Your task to perform on an android device: Set the phone to "Do not disturb". Image 0: 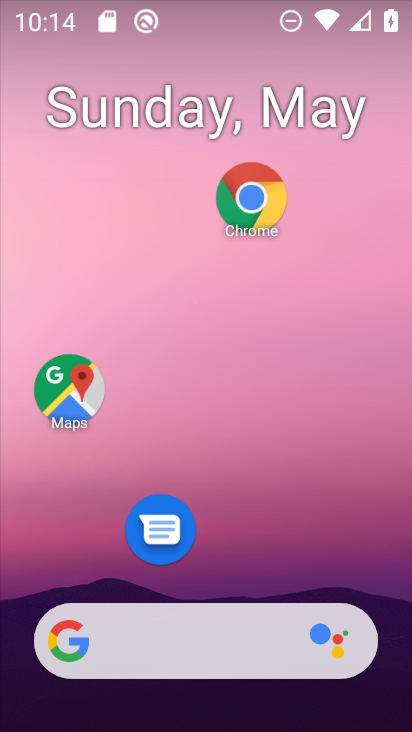
Step 0: drag from (262, 556) to (229, 133)
Your task to perform on an android device: Set the phone to "Do not disturb". Image 1: 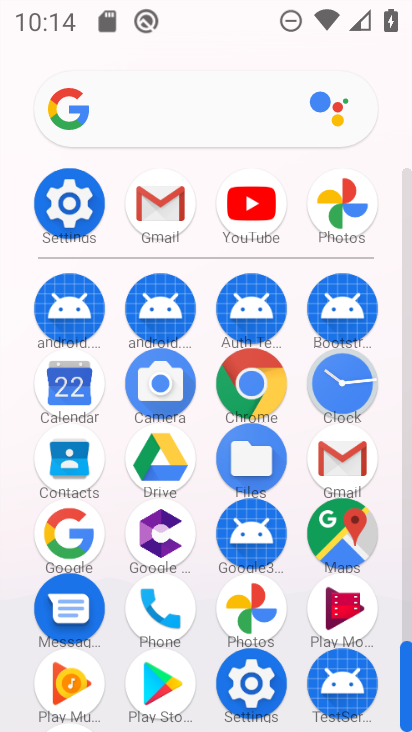
Step 1: click (71, 208)
Your task to perform on an android device: Set the phone to "Do not disturb". Image 2: 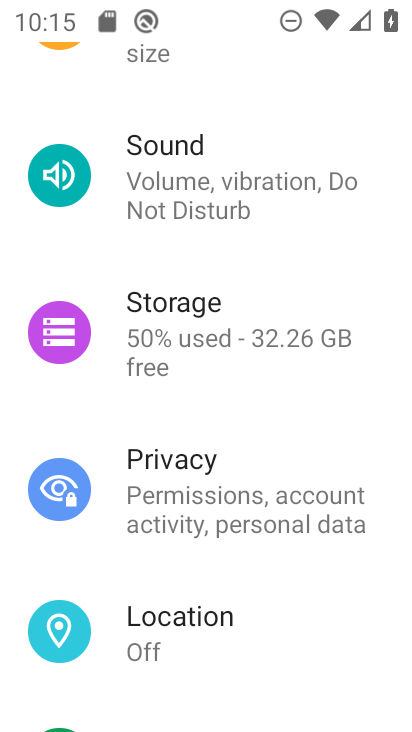
Step 2: click (238, 220)
Your task to perform on an android device: Set the phone to "Do not disturb". Image 3: 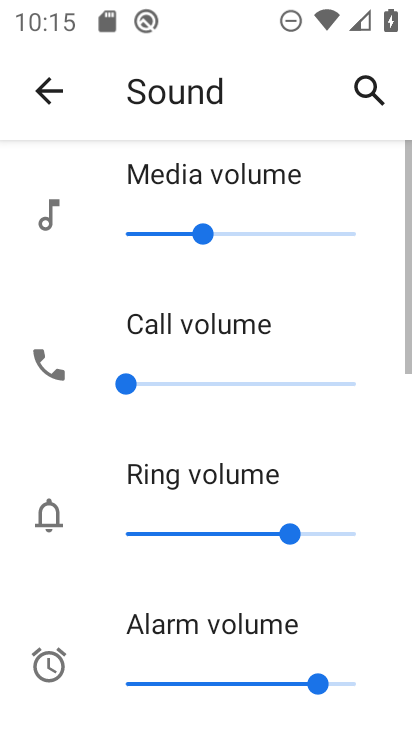
Step 3: drag from (211, 606) to (225, 127)
Your task to perform on an android device: Set the phone to "Do not disturb". Image 4: 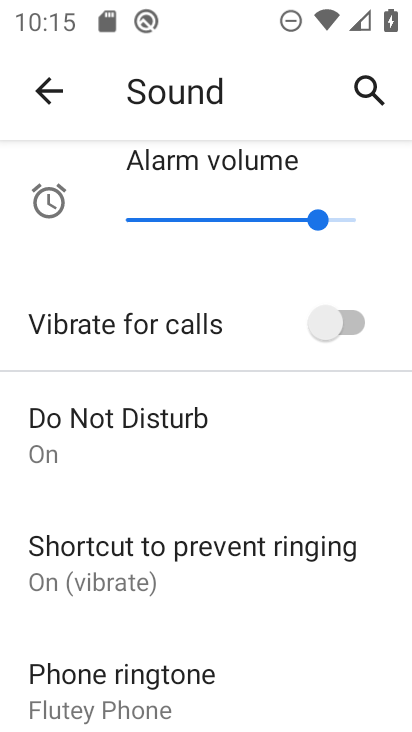
Step 4: click (173, 443)
Your task to perform on an android device: Set the phone to "Do not disturb". Image 5: 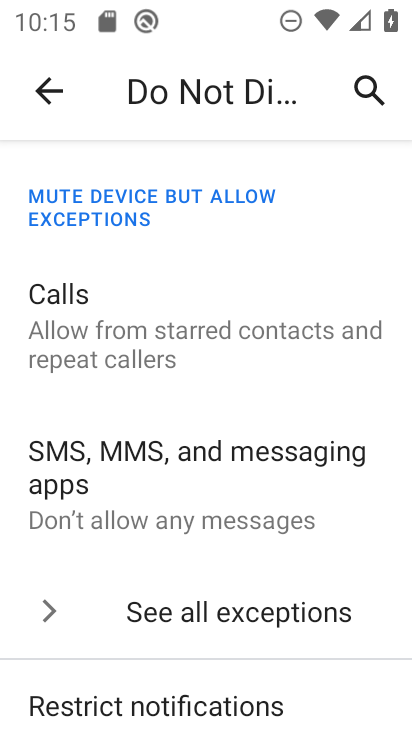
Step 5: task complete